Your task to perform on an android device: toggle notifications settings in the gmail app Image 0: 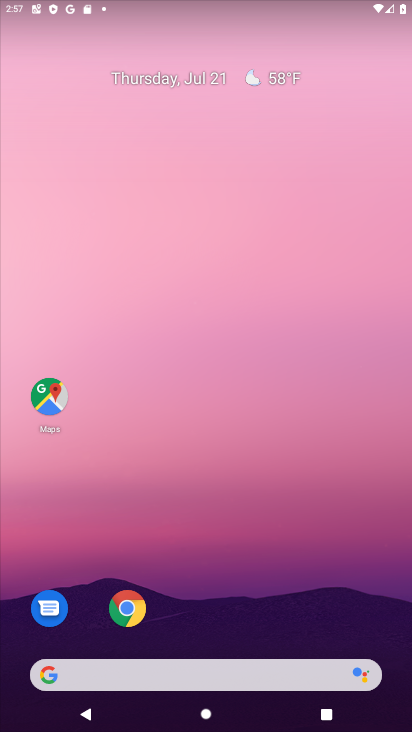
Step 0: press home button
Your task to perform on an android device: toggle notifications settings in the gmail app Image 1: 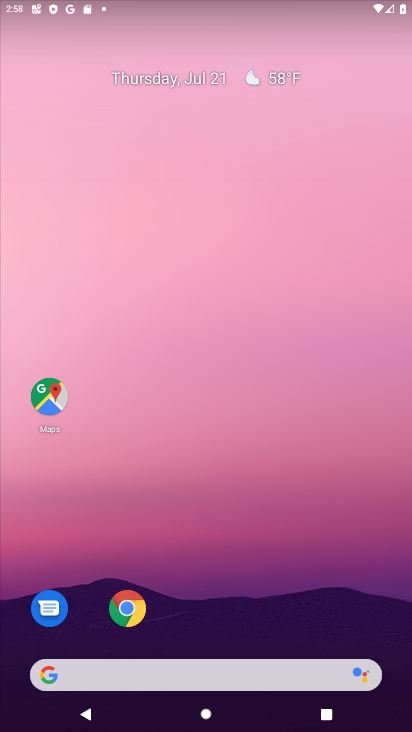
Step 1: drag from (229, 628) to (264, 118)
Your task to perform on an android device: toggle notifications settings in the gmail app Image 2: 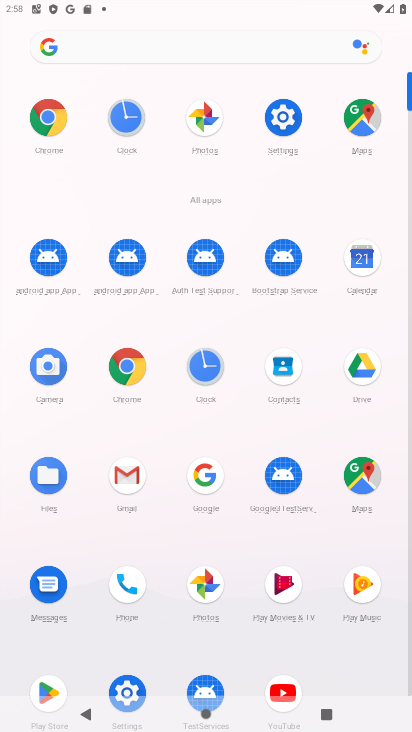
Step 2: click (120, 471)
Your task to perform on an android device: toggle notifications settings in the gmail app Image 3: 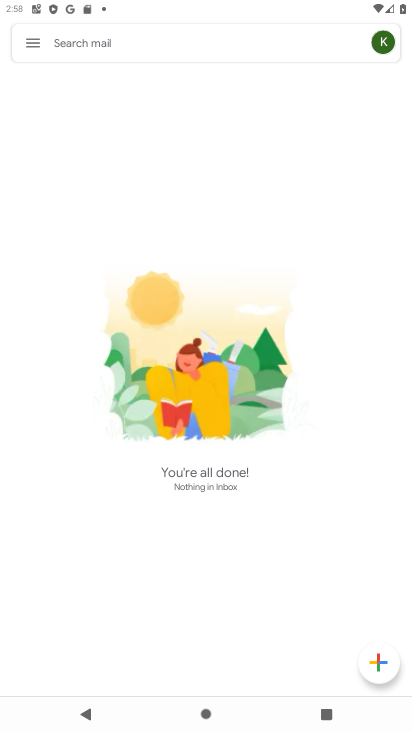
Step 3: click (36, 43)
Your task to perform on an android device: toggle notifications settings in the gmail app Image 4: 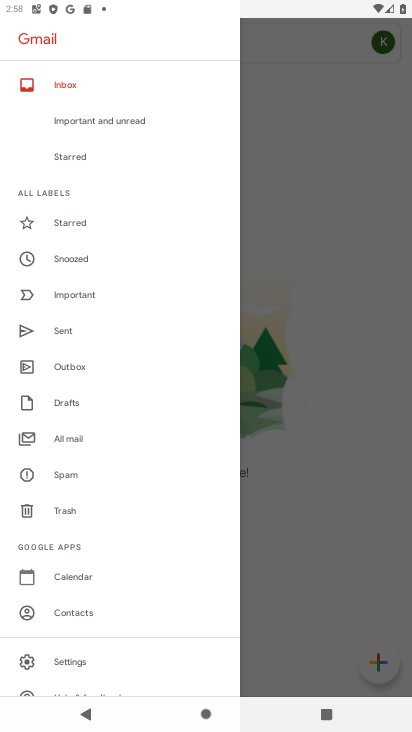
Step 4: click (90, 658)
Your task to perform on an android device: toggle notifications settings in the gmail app Image 5: 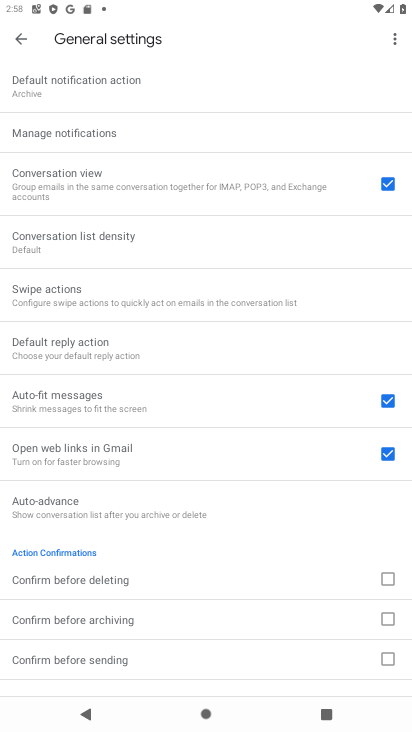
Step 5: click (128, 135)
Your task to perform on an android device: toggle notifications settings in the gmail app Image 6: 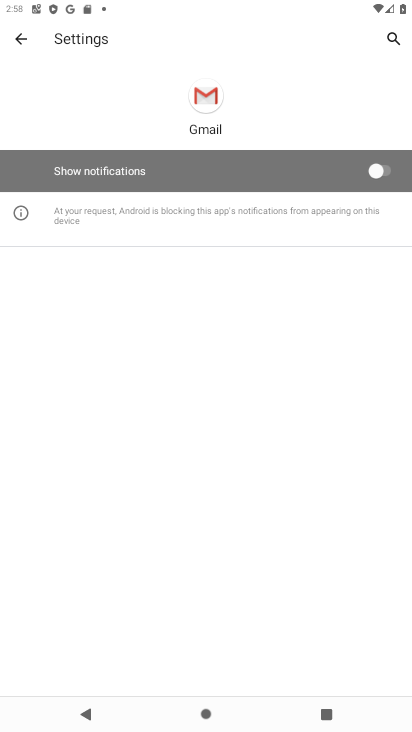
Step 6: click (383, 168)
Your task to perform on an android device: toggle notifications settings in the gmail app Image 7: 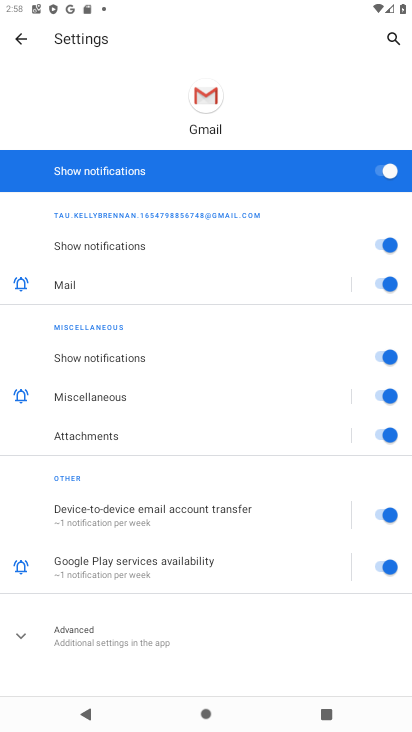
Step 7: task complete